Your task to perform on an android device: When is my next meeting? Image 0: 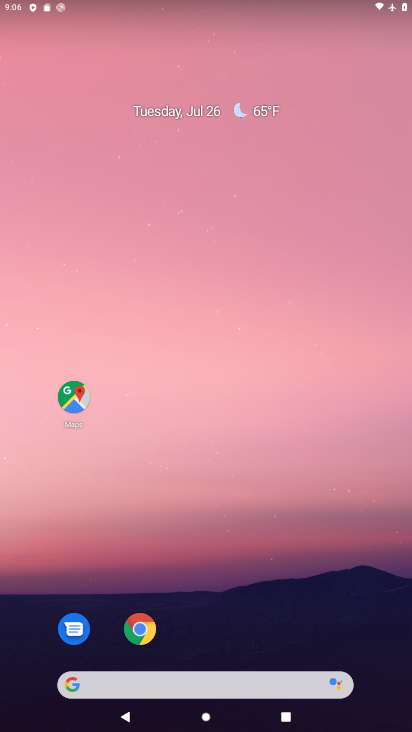
Step 0: drag from (321, 625) to (258, 88)
Your task to perform on an android device: When is my next meeting? Image 1: 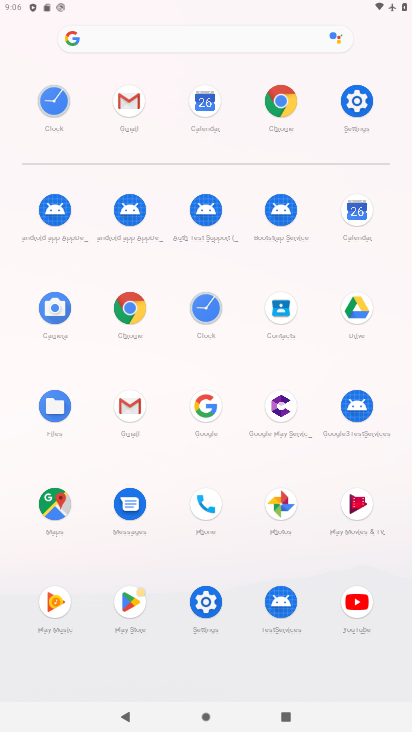
Step 1: click (350, 221)
Your task to perform on an android device: When is my next meeting? Image 2: 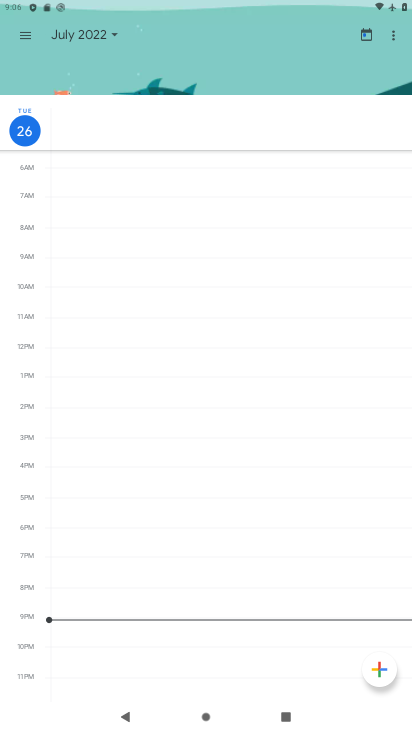
Step 2: click (30, 34)
Your task to perform on an android device: When is my next meeting? Image 3: 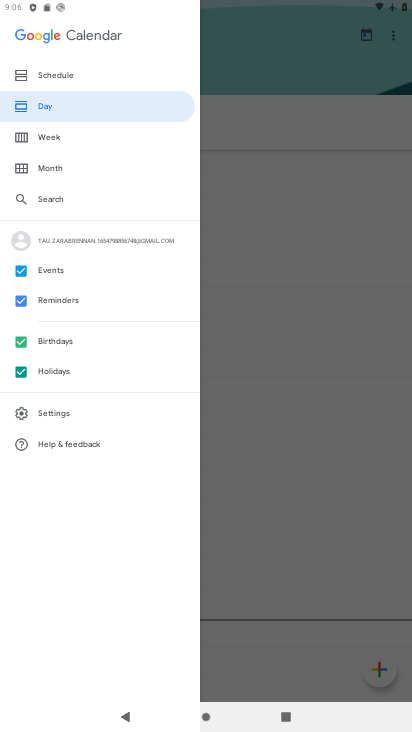
Step 3: click (77, 138)
Your task to perform on an android device: When is my next meeting? Image 4: 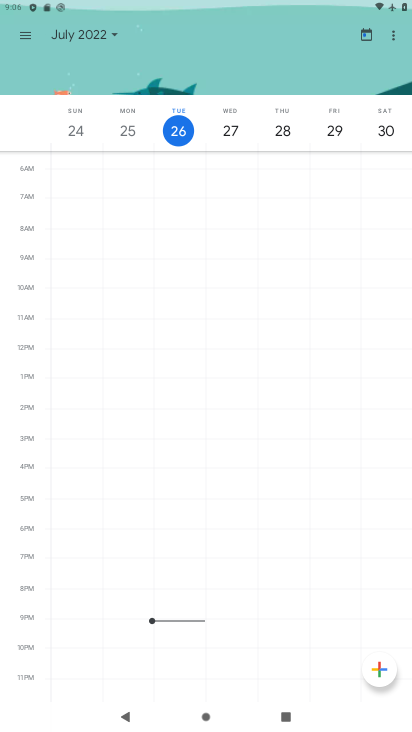
Step 4: task complete